Your task to perform on an android device: Go to location settings Image 0: 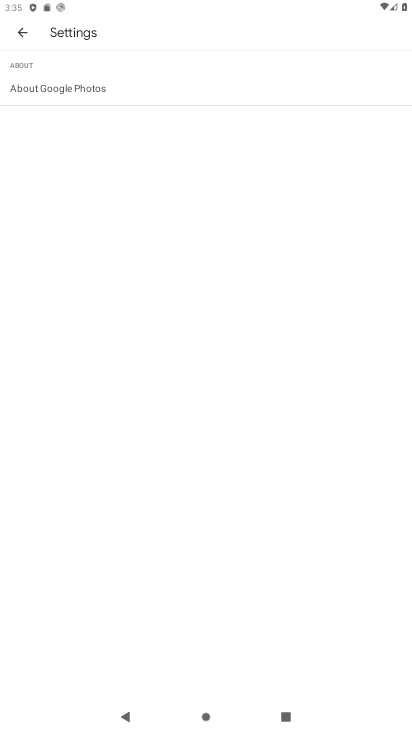
Step 0: press home button
Your task to perform on an android device: Go to location settings Image 1: 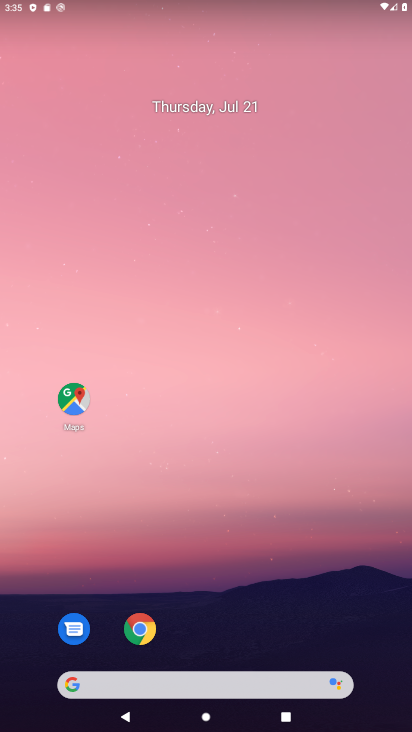
Step 1: drag from (237, 609) to (289, 129)
Your task to perform on an android device: Go to location settings Image 2: 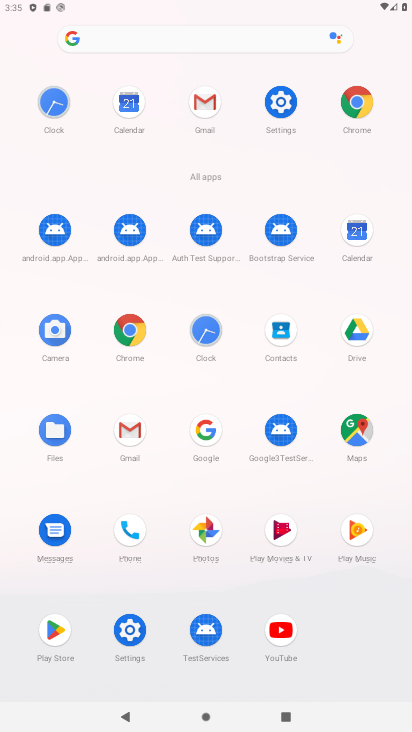
Step 2: click (277, 106)
Your task to perform on an android device: Go to location settings Image 3: 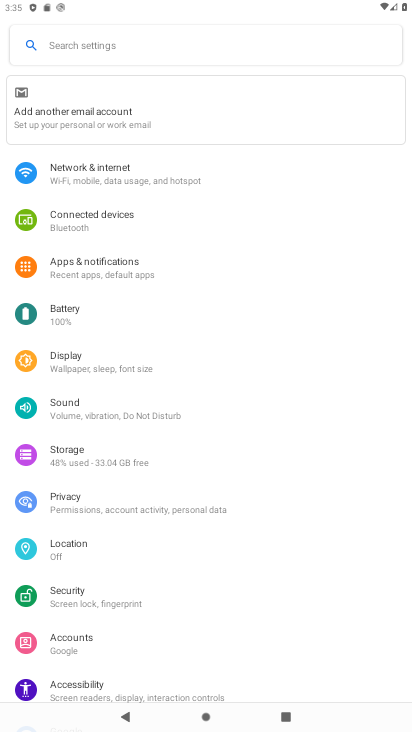
Step 3: click (74, 553)
Your task to perform on an android device: Go to location settings Image 4: 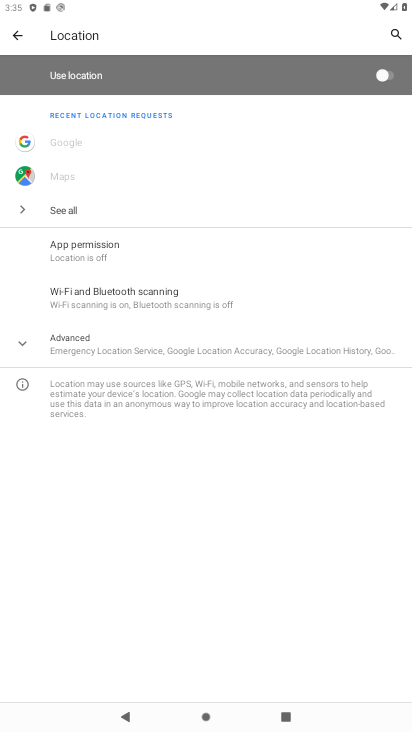
Step 4: task complete